Your task to perform on an android device: set the timer Image 0: 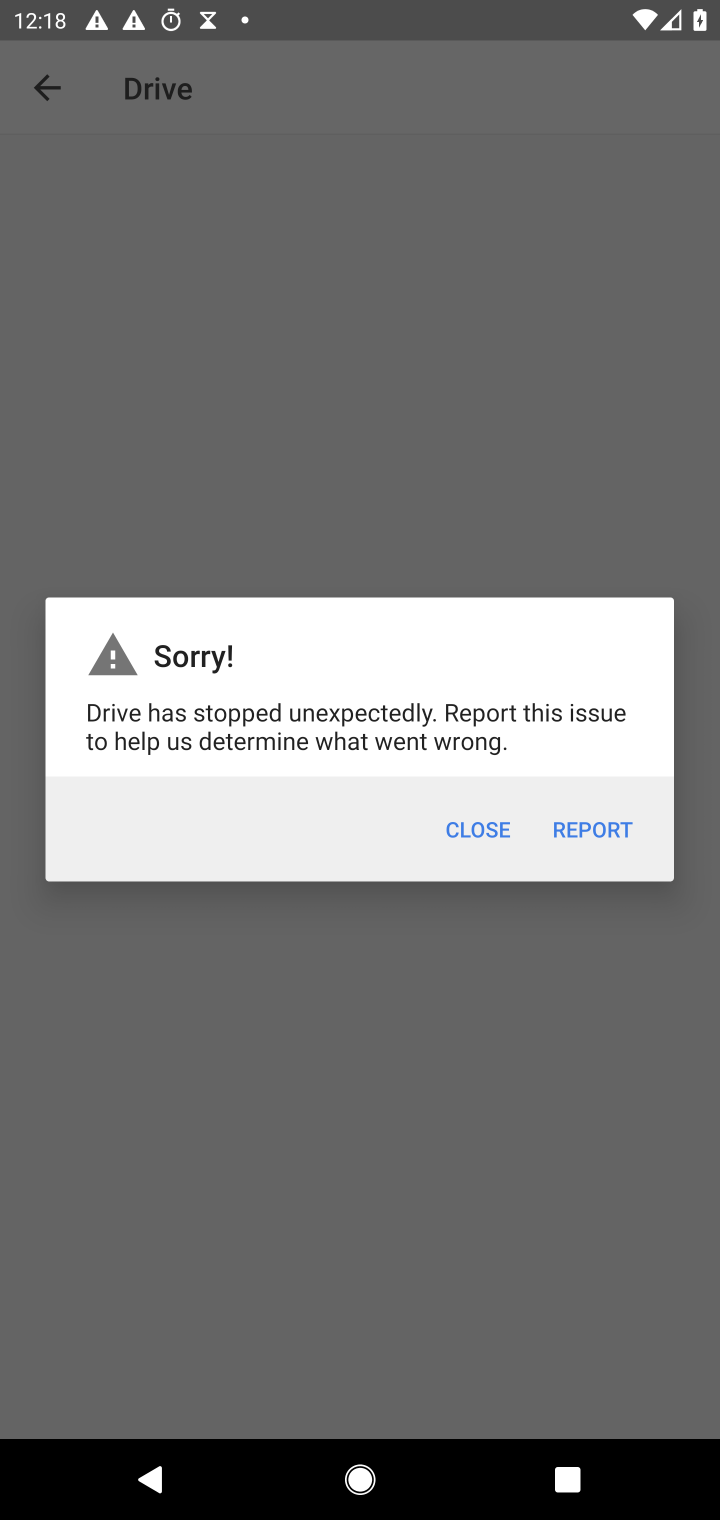
Step 0: press home button
Your task to perform on an android device: set the timer Image 1: 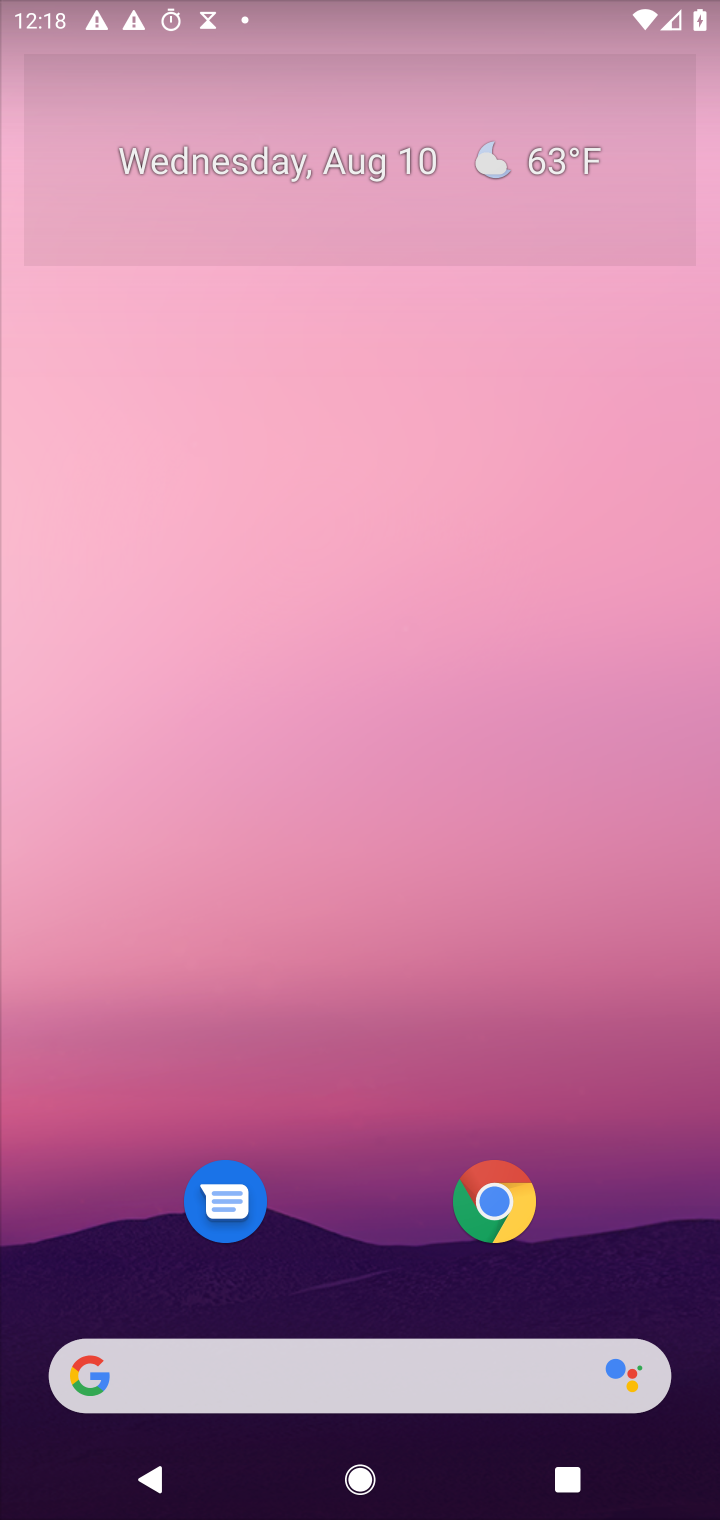
Step 1: drag from (355, 929) to (328, 63)
Your task to perform on an android device: set the timer Image 2: 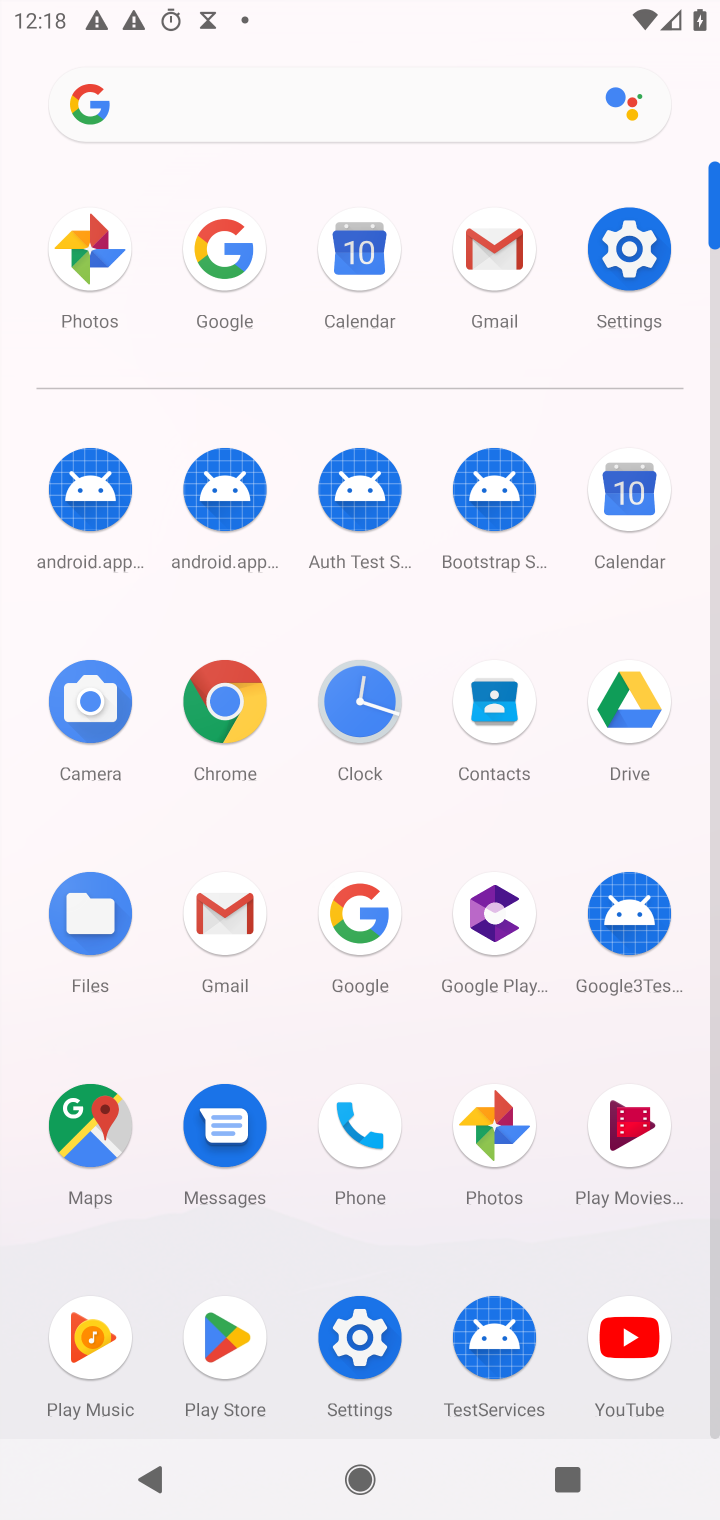
Step 2: click (369, 705)
Your task to perform on an android device: set the timer Image 3: 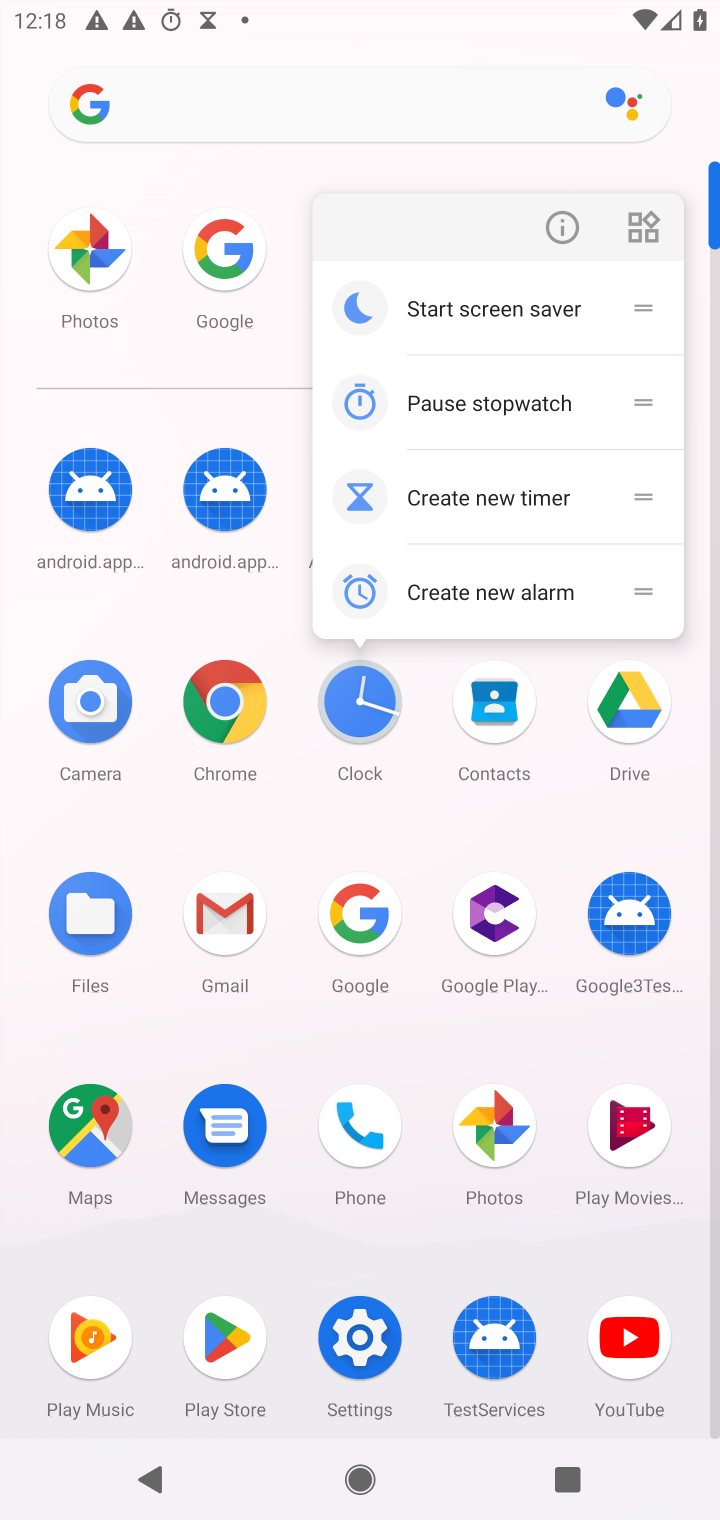
Step 3: click (350, 697)
Your task to perform on an android device: set the timer Image 4: 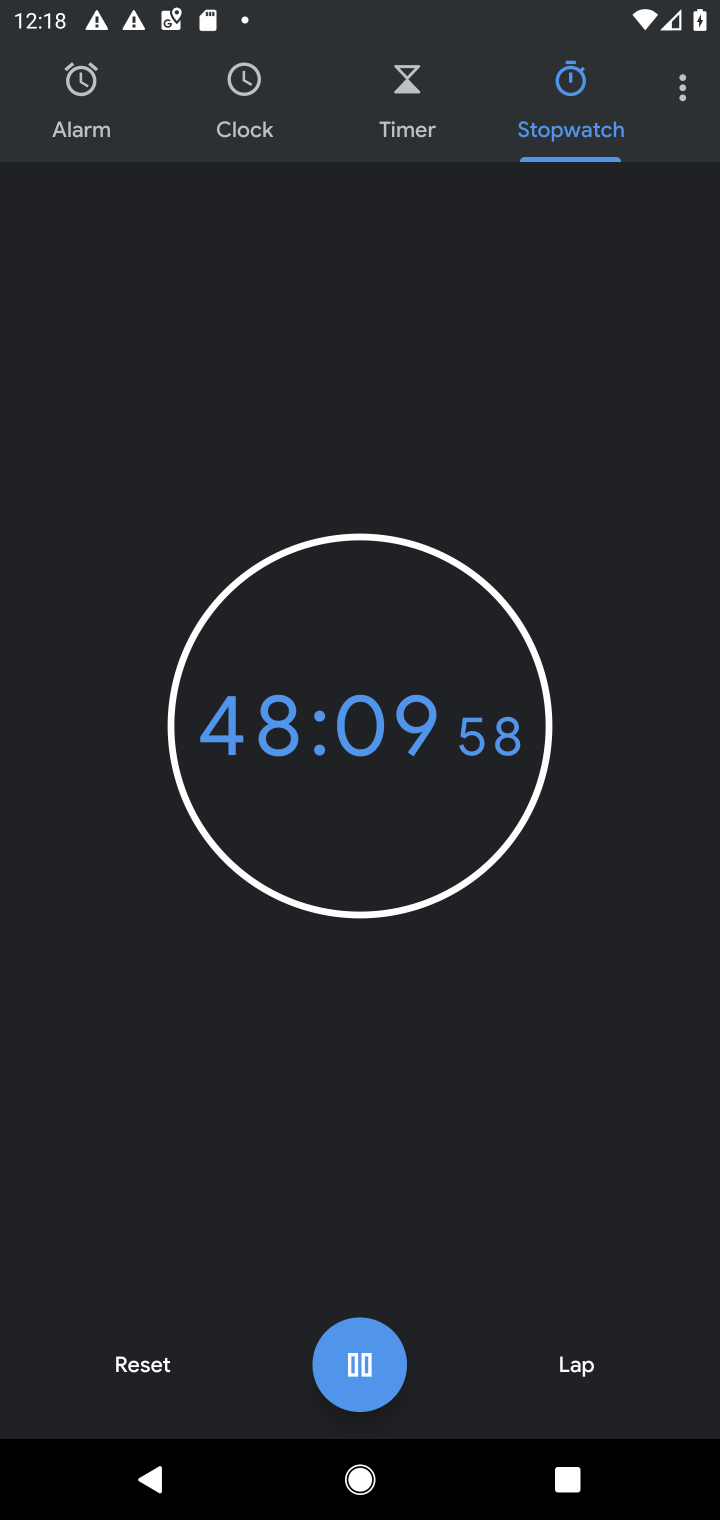
Step 4: click (406, 98)
Your task to perform on an android device: set the timer Image 5: 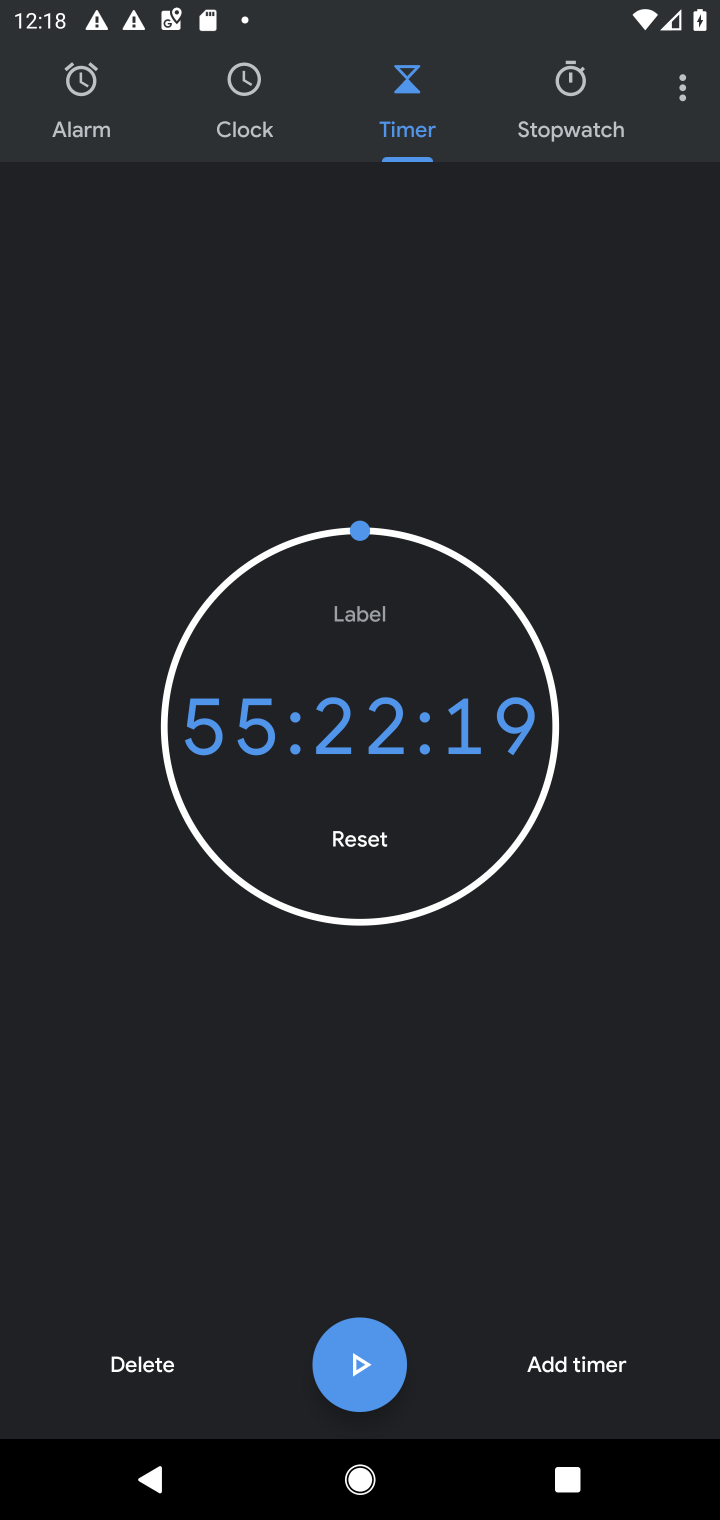
Step 5: click (365, 1356)
Your task to perform on an android device: set the timer Image 6: 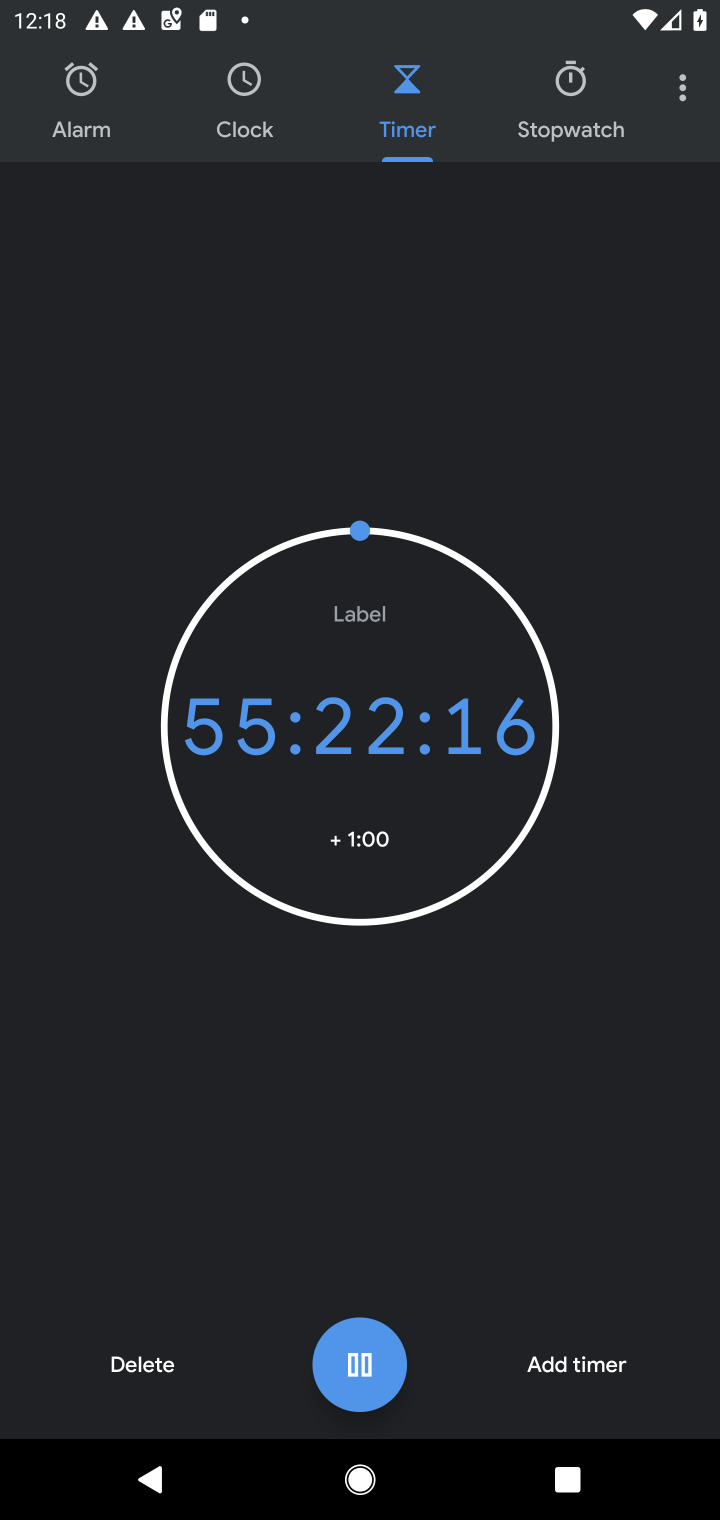
Step 6: click (353, 1369)
Your task to perform on an android device: set the timer Image 7: 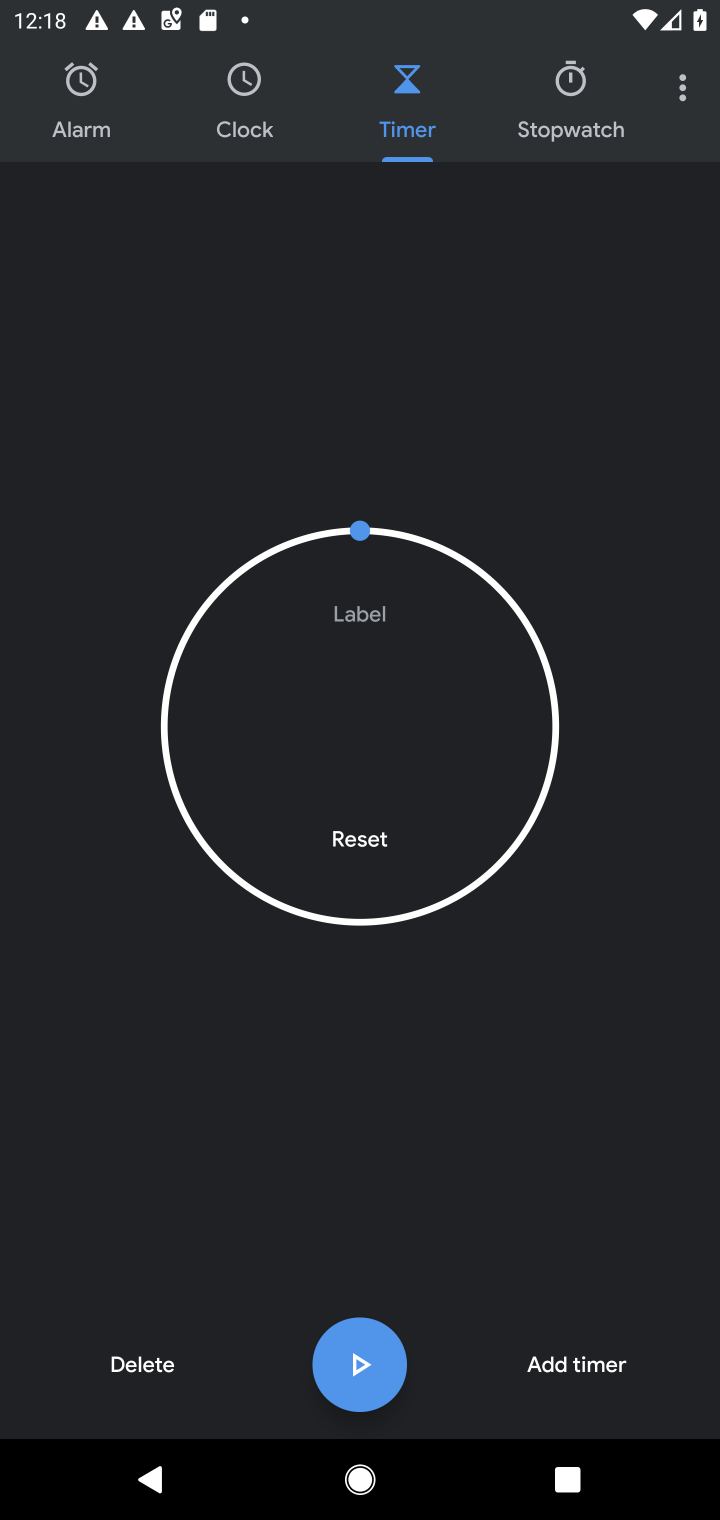
Step 7: task complete